Your task to perform on an android device: Add "macbook pro 13 inch" to the cart on walmart.com, then select checkout. Image 0: 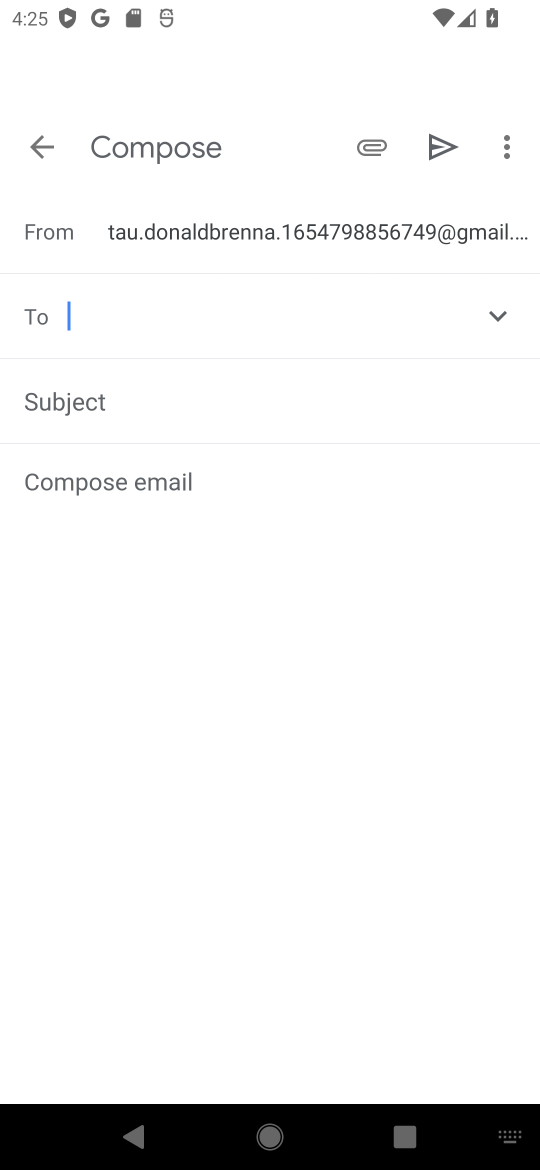
Step 0: press home button
Your task to perform on an android device: Add "macbook pro 13 inch" to the cart on walmart.com, then select checkout. Image 1: 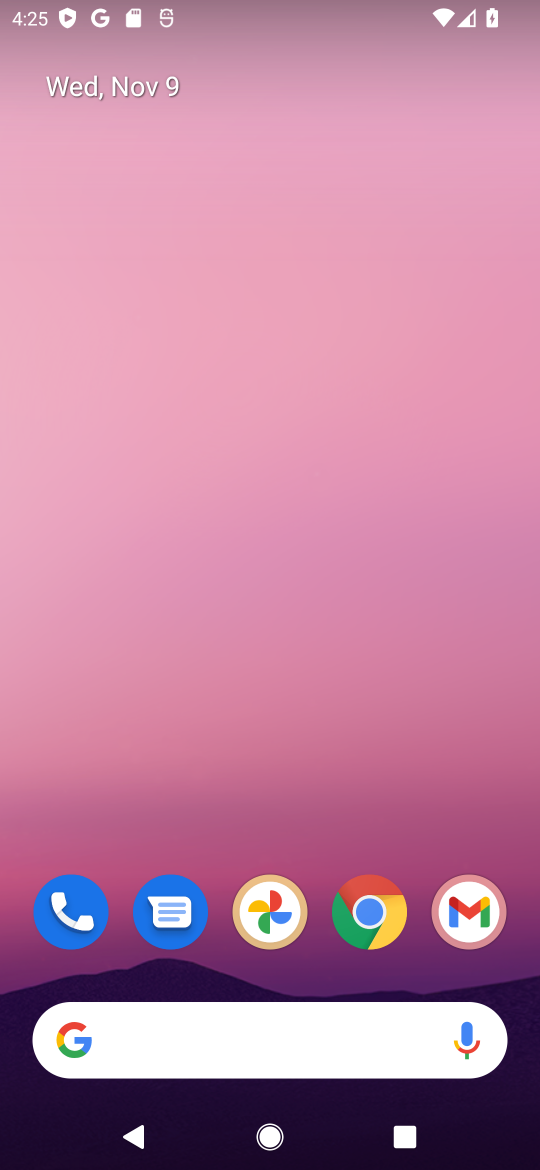
Step 1: click (372, 914)
Your task to perform on an android device: Add "macbook pro 13 inch" to the cart on walmart.com, then select checkout. Image 2: 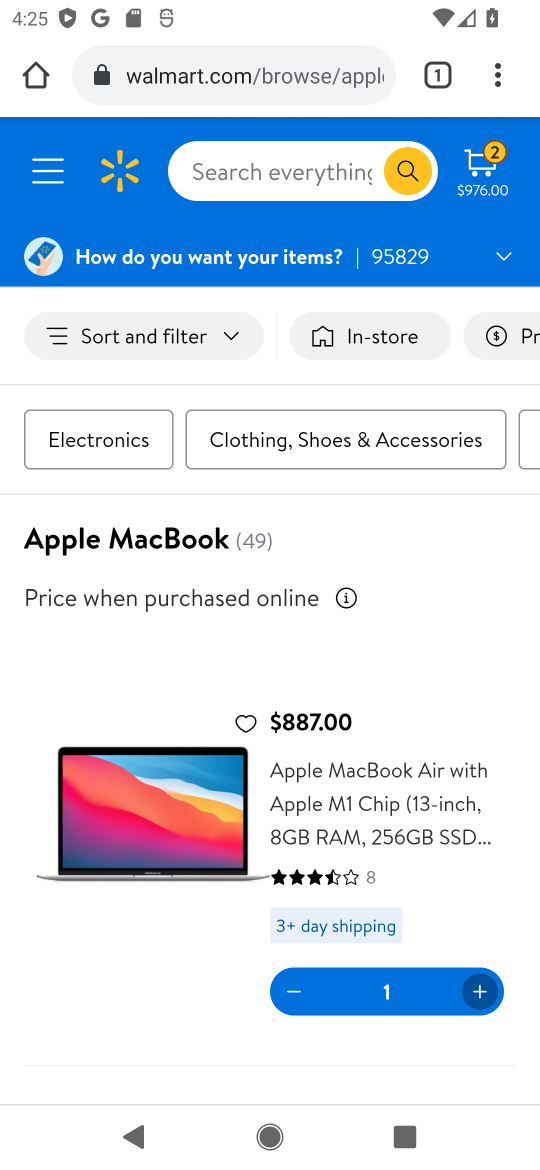
Step 2: click (269, 71)
Your task to perform on an android device: Add "macbook pro 13 inch" to the cart on walmart.com, then select checkout. Image 3: 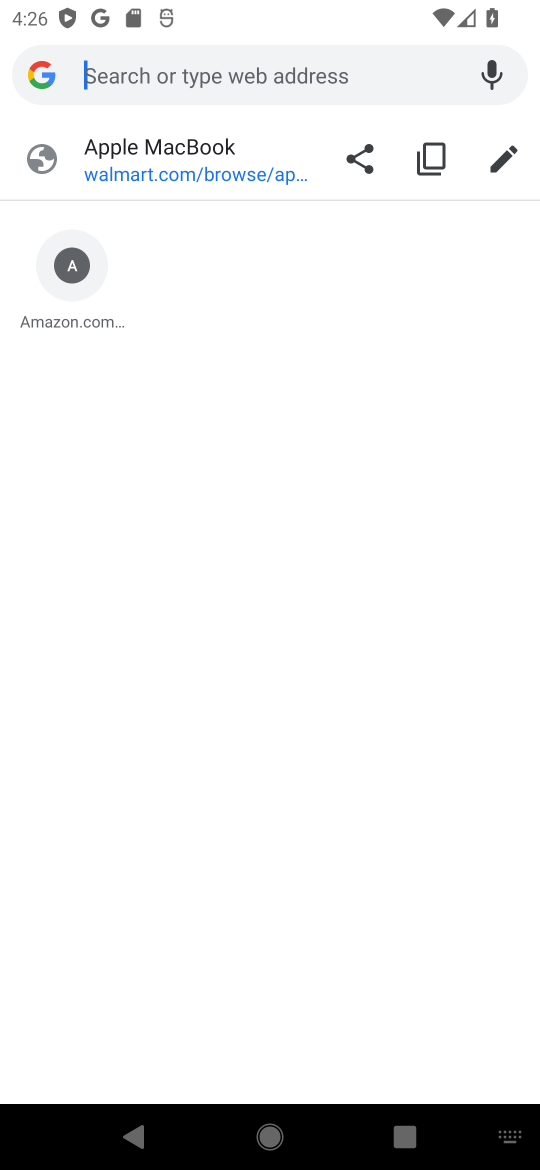
Step 3: type "walmart.com"
Your task to perform on an android device: Add "macbook pro 13 inch" to the cart on walmart.com, then select checkout. Image 4: 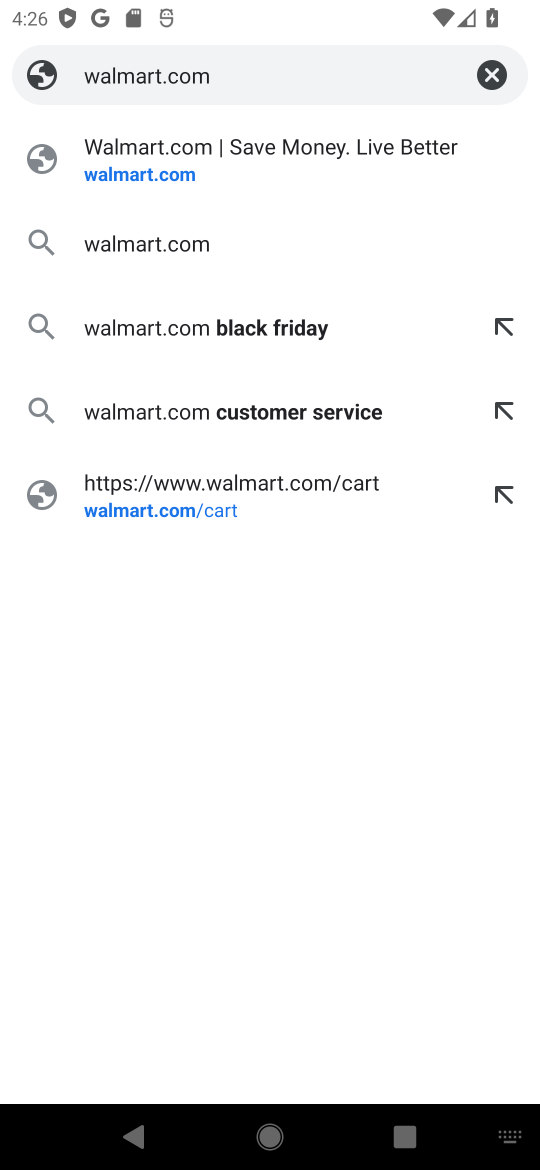
Step 4: click (186, 251)
Your task to perform on an android device: Add "macbook pro 13 inch" to the cart on walmart.com, then select checkout. Image 5: 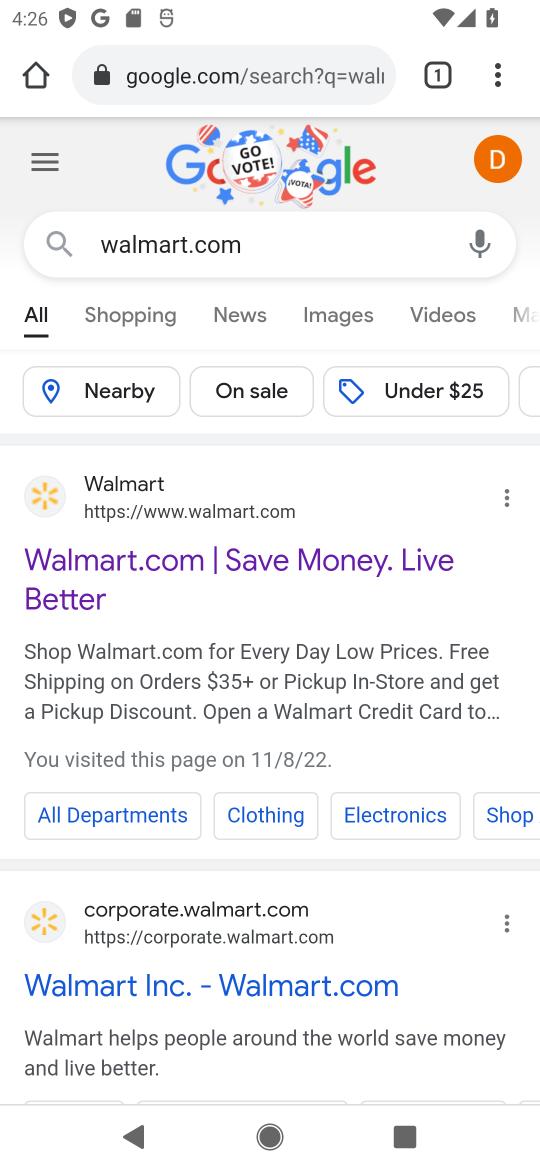
Step 5: click (205, 565)
Your task to perform on an android device: Add "macbook pro 13 inch" to the cart on walmart.com, then select checkout. Image 6: 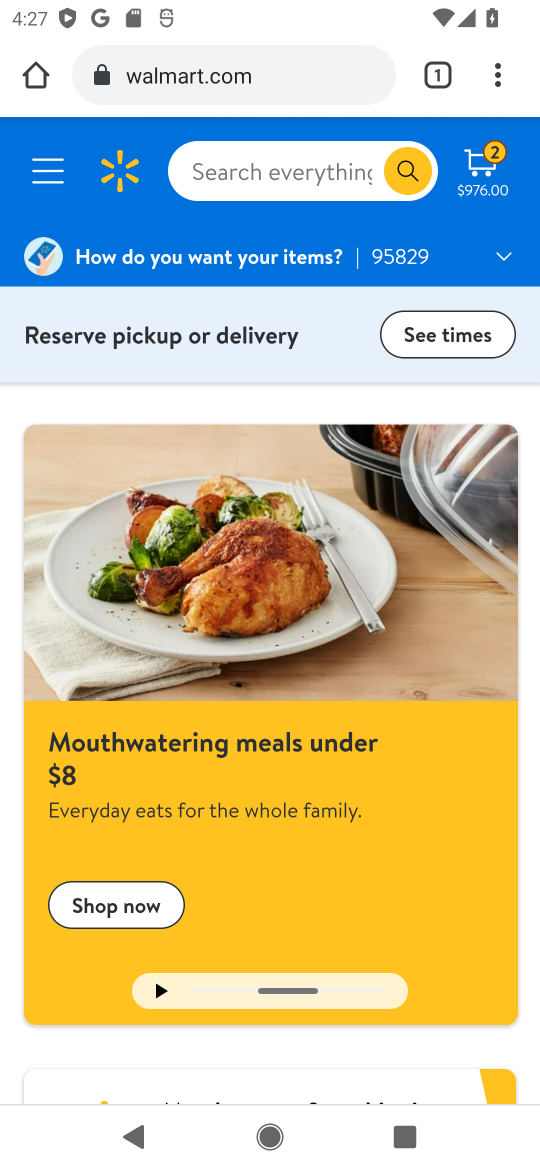
Step 6: click (266, 166)
Your task to perform on an android device: Add "macbook pro 13 inch" to the cart on walmart.com, then select checkout. Image 7: 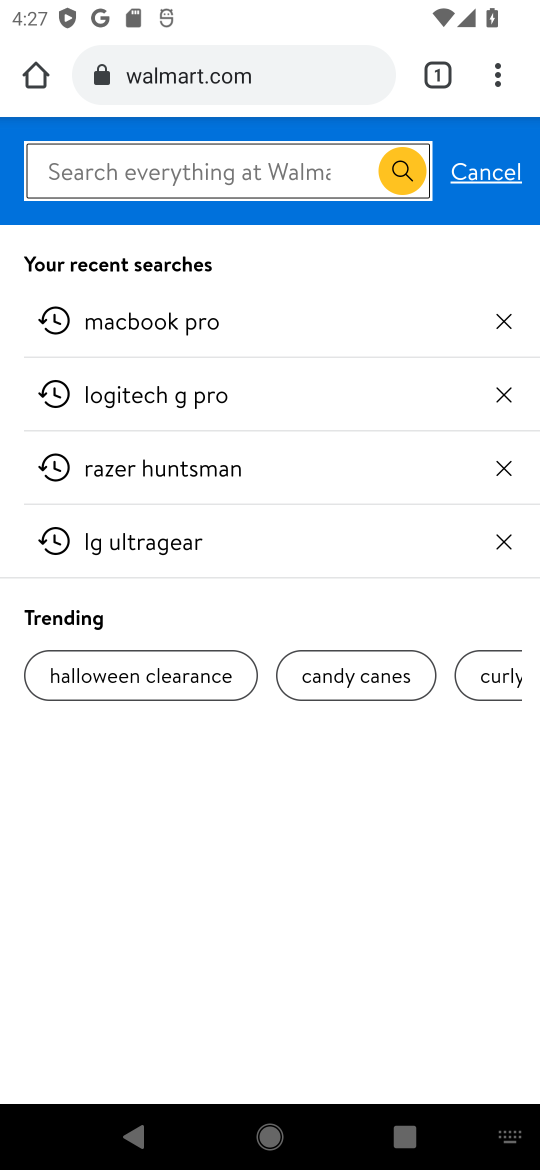
Step 7: type "macbook pro 13 inch"
Your task to perform on an android device: Add "macbook pro 13 inch" to the cart on walmart.com, then select checkout. Image 8: 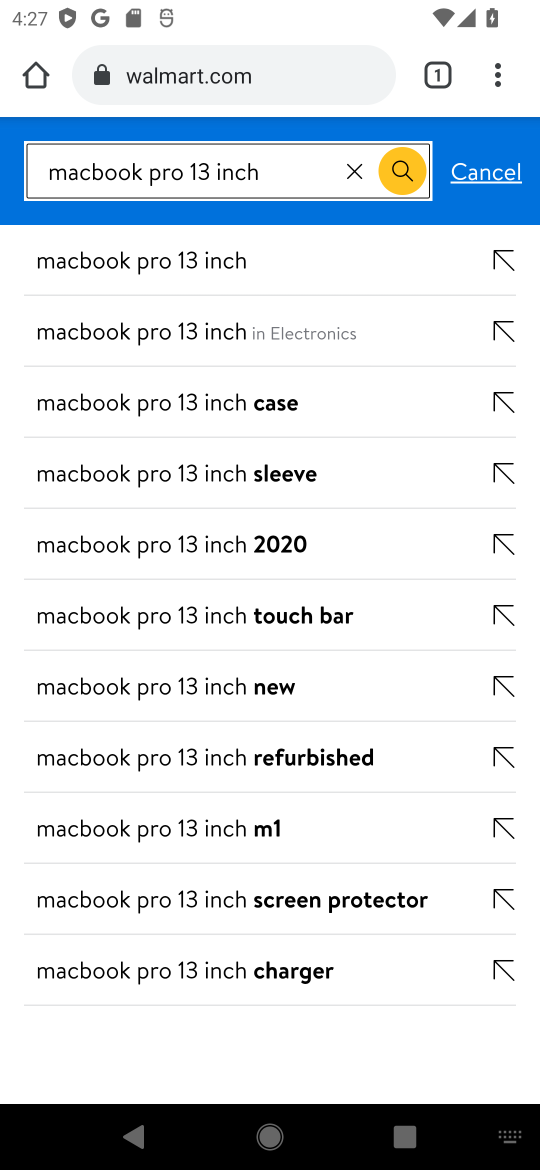
Step 8: click (219, 254)
Your task to perform on an android device: Add "macbook pro 13 inch" to the cart on walmart.com, then select checkout. Image 9: 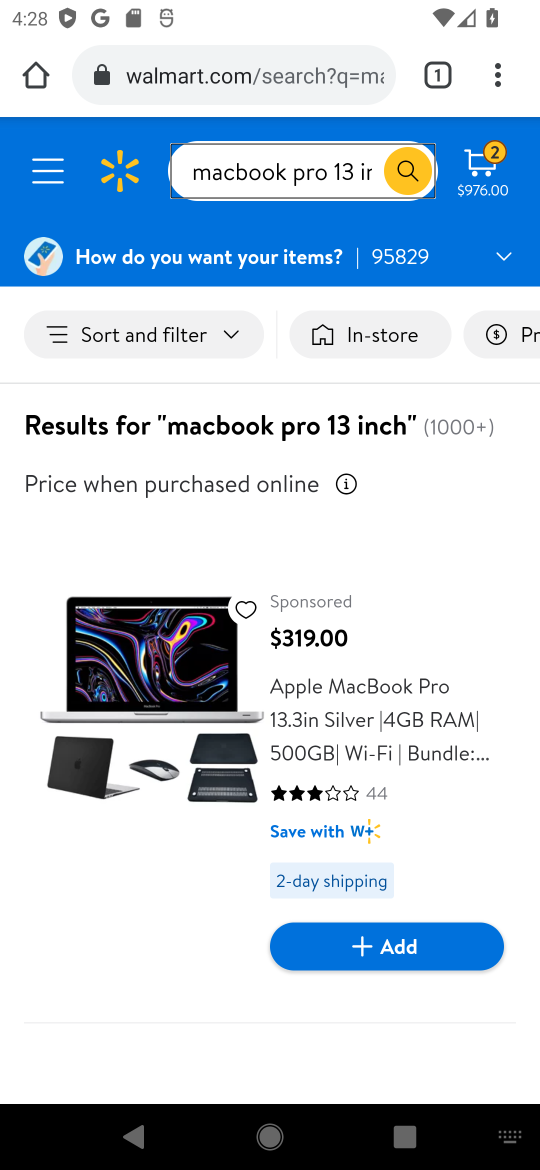
Step 9: click (399, 955)
Your task to perform on an android device: Add "macbook pro 13 inch" to the cart on walmart.com, then select checkout. Image 10: 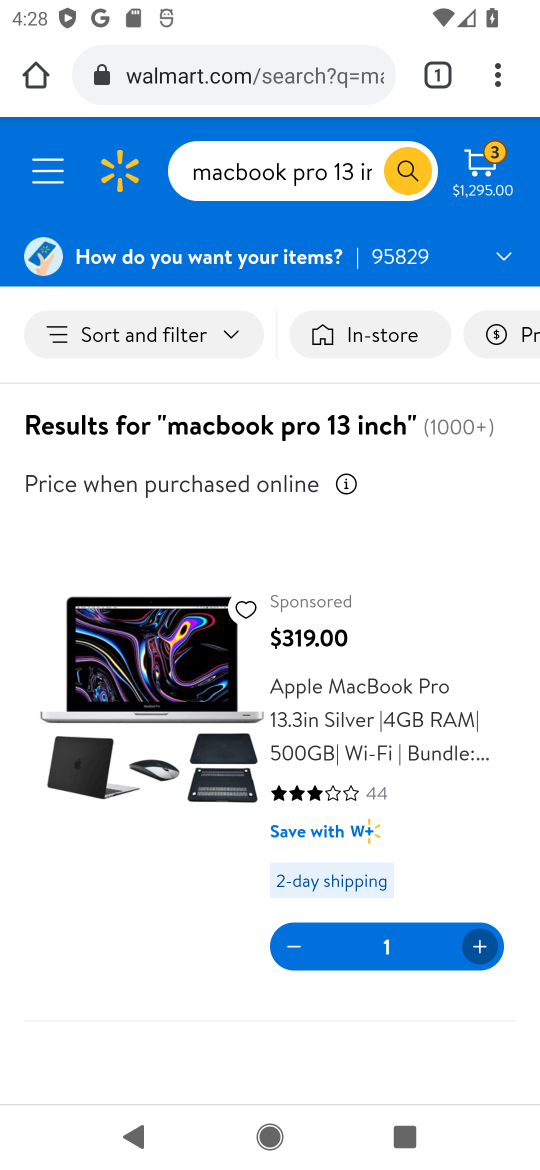
Step 10: click (488, 154)
Your task to perform on an android device: Add "macbook pro 13 inch" to the cart on walmart.com, then select checkout. Image 11: 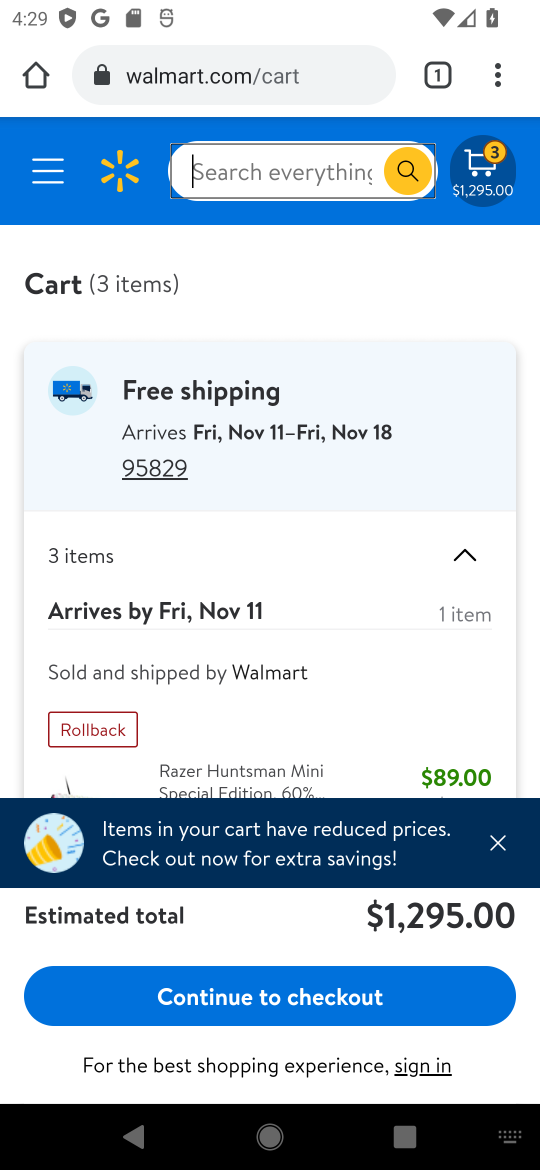
Step 11: click (313, 998)
Your task to perform on an android device: Add "macbook pro 13 inch" to the cart on walmart.com, then select checkout. Image 12: 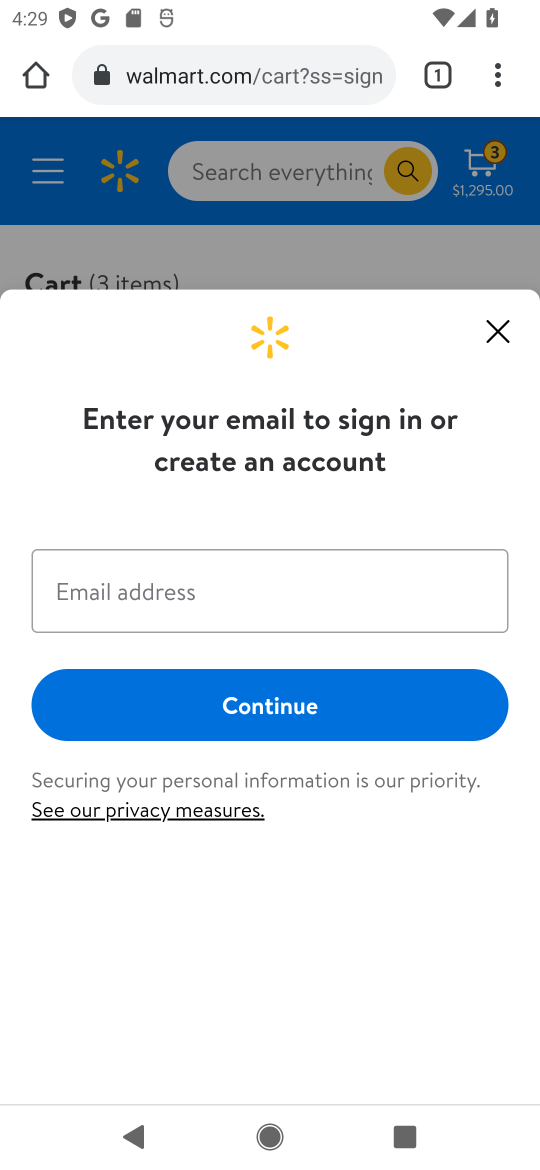
Step 12: task complete